Your task to perform on an android device: move a message to another label in the gmail app Image 0: 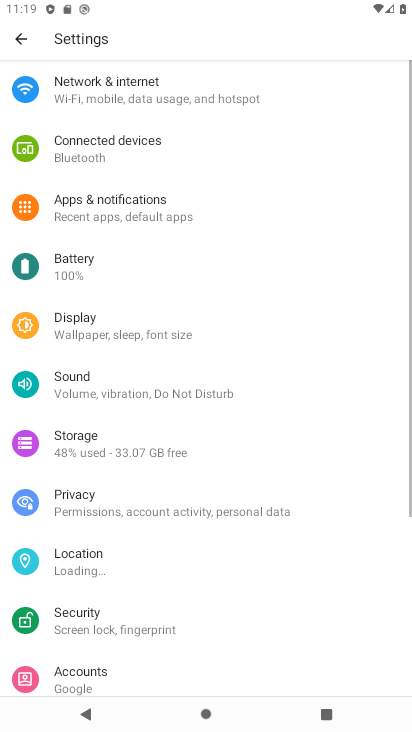
Step 0: press home button
Your task to perform on an android device: move a message to another label in the gmail app Image 1: 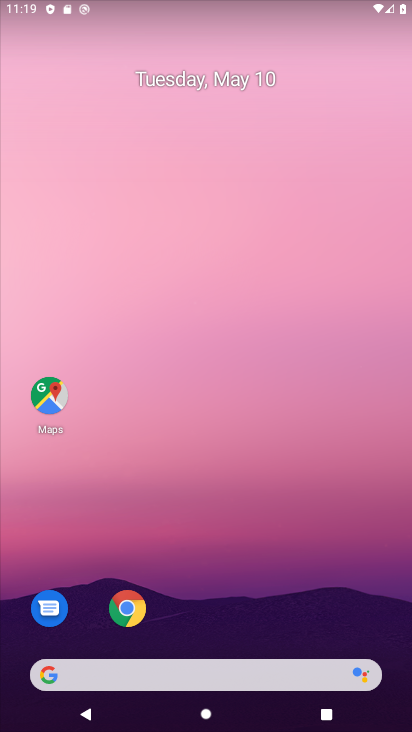
Step 1: drag from (240, 474) to (241, 120)
Your task to perform on an android device: move a message to another label in the gmail app Image 2: 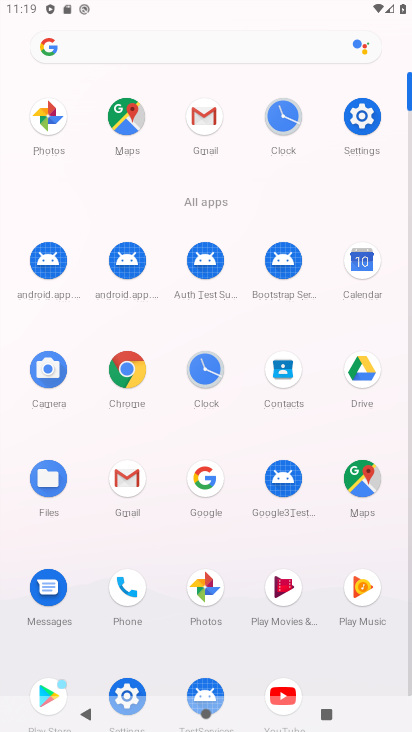
Step 2: click (128, 478)
Your task to perform on an android device: move a message to another label in the gmail app Image 3: 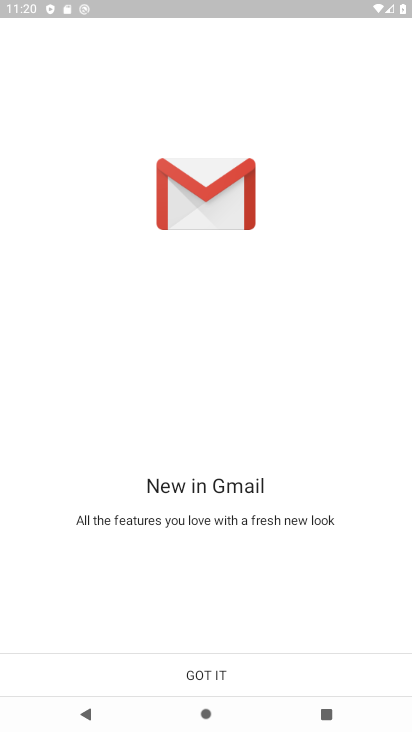
Step 3: click (202, 670)
Your task to perform on an android device: move a message to another label in the gmail app Image 4: 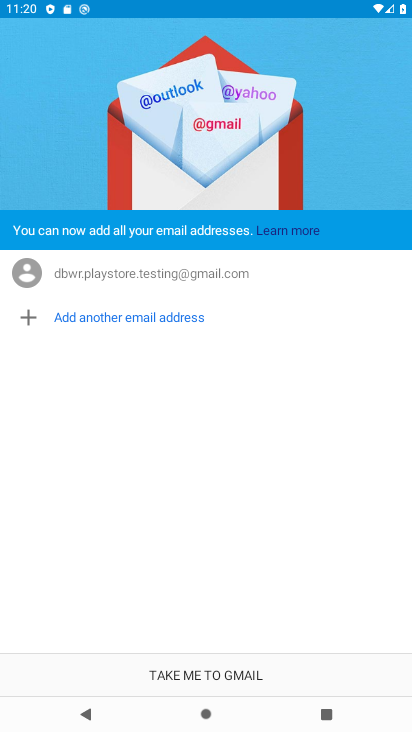
Step 4: click (202, 670)
Your task to perform on an android device: move a message to another label in the gmail app Image 5: 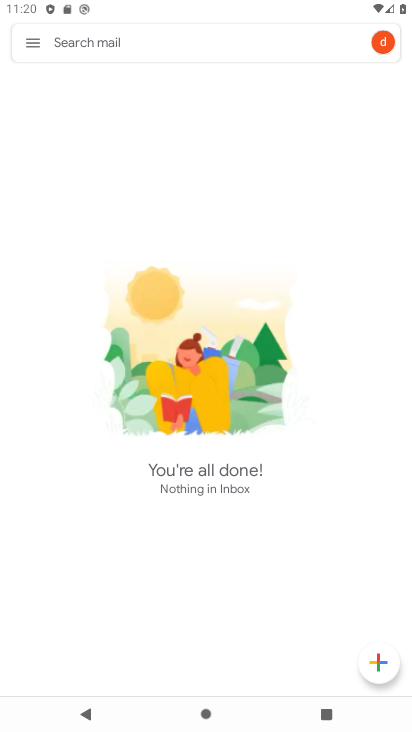
Step 5: click (34, 44)
Your task to perform on an android device: move a message to another label in the gmail app Image 6: 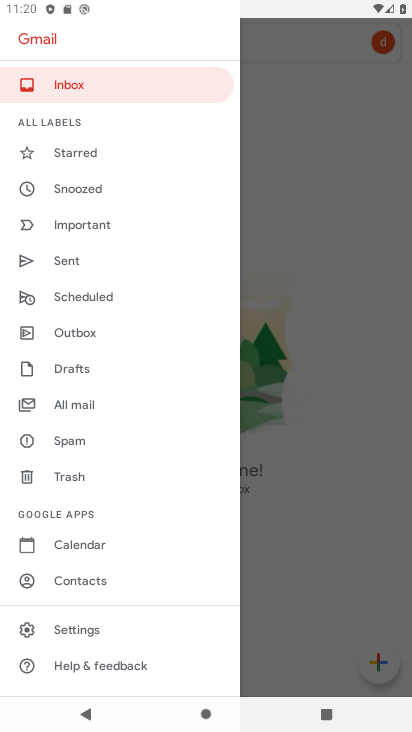
Step 6: drag from (77, 241) to (84, 449)
Your task to perform on an android device: move a message to another label in the gmail app Image 7: 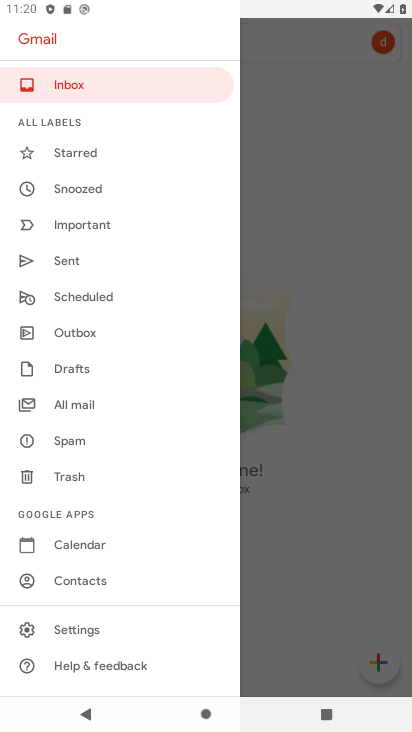
Step 7: click (310, 253)
Your task to perform on an android device: move a message to another label in the gmail app Image 8: 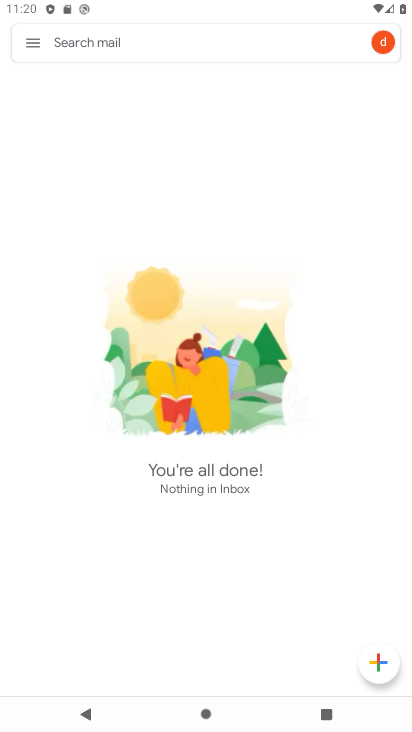
Step 8: task complete